Your task to perform on an android device: Open accessibility settings Image 0: 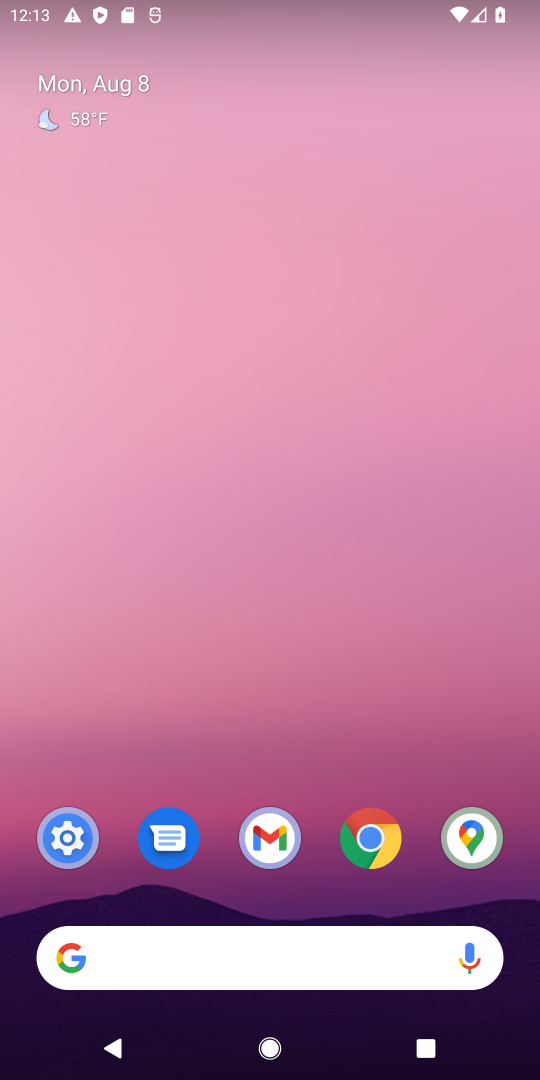
Step 0: press home button
Your task to perform on an android device: Open accessibility settings Image 1: 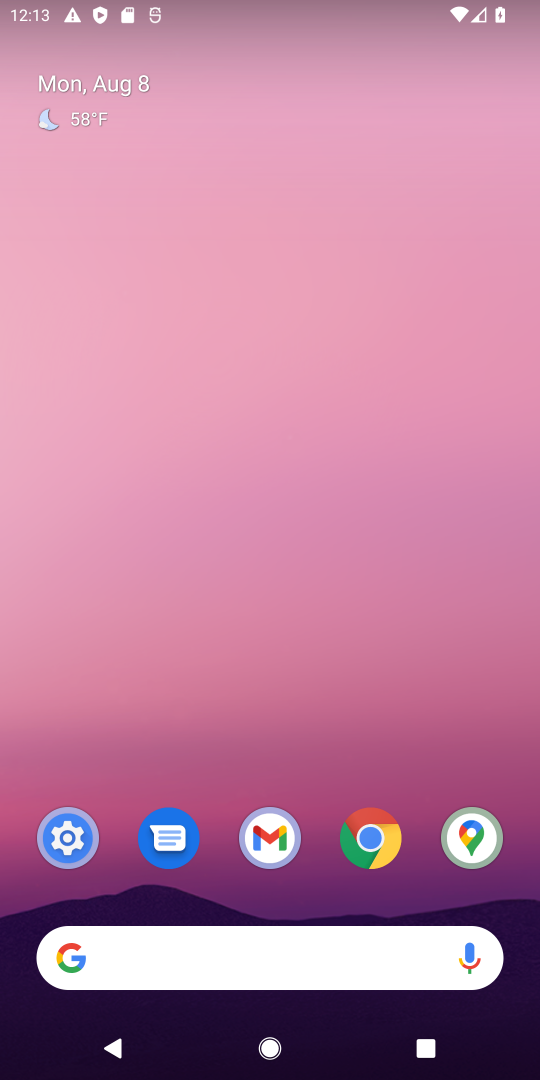
Step 1: click (75, 844)
Your task to perform on an android device: Open accessibility settings Image 2: 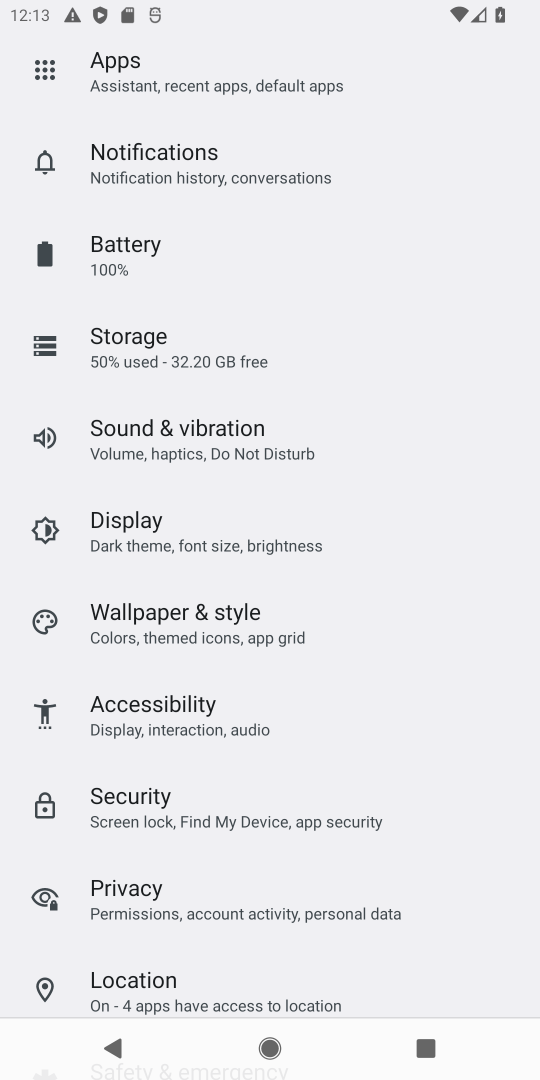
Step 2: click (134, 709)
Your task to perform on an android device: Open accessibility settings Image 3: 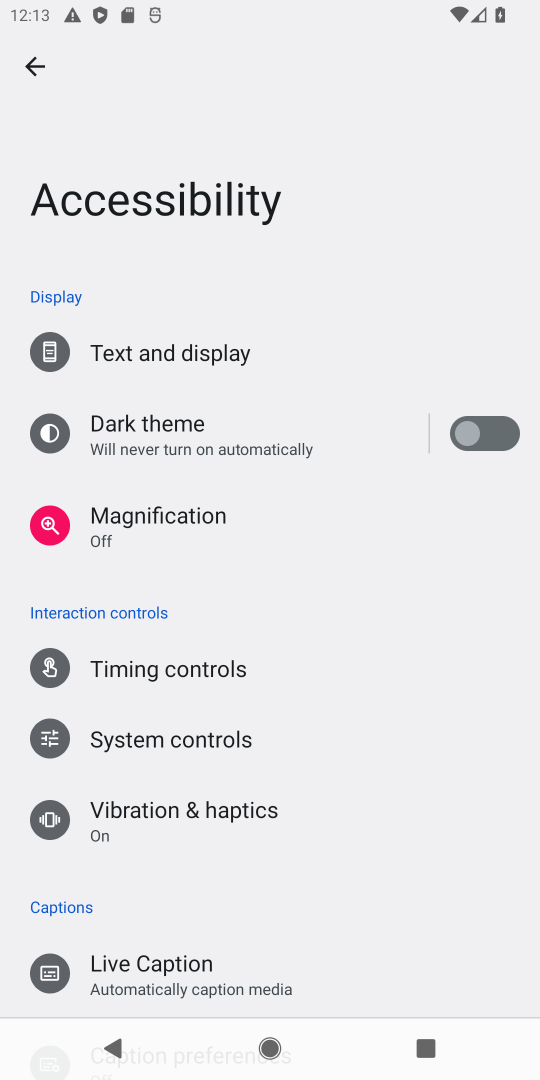
Step 3: task complete